Your task to perform on an android device: Open accessibility settings Image 0: 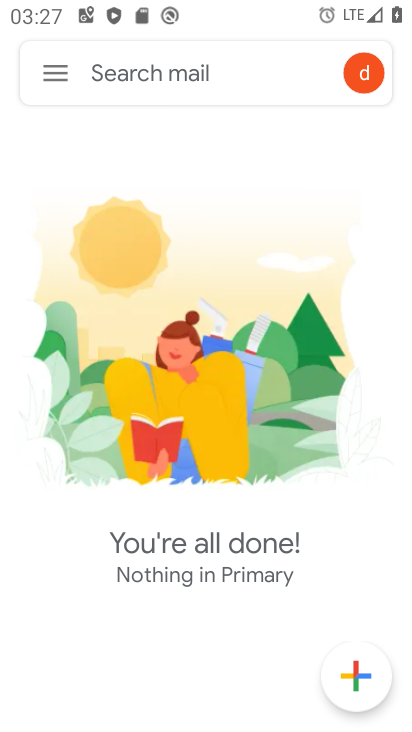
Step 0: press home button
Your task to perform on an android device: Open accessibility settings Image 1: 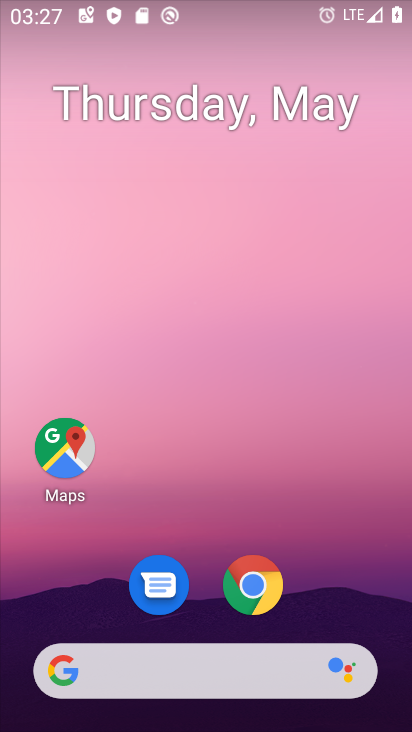
Step 1: drag from (212, 495) to (183, 43)
Your task to perform on an android device: Open accessibility settings Image 2: 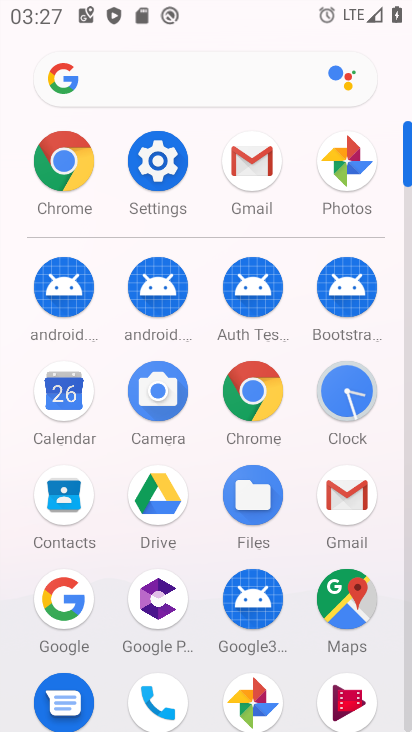
Step 2: click (155, 162)
Your task to perform on an android device: Open accessibility settings Image 3: 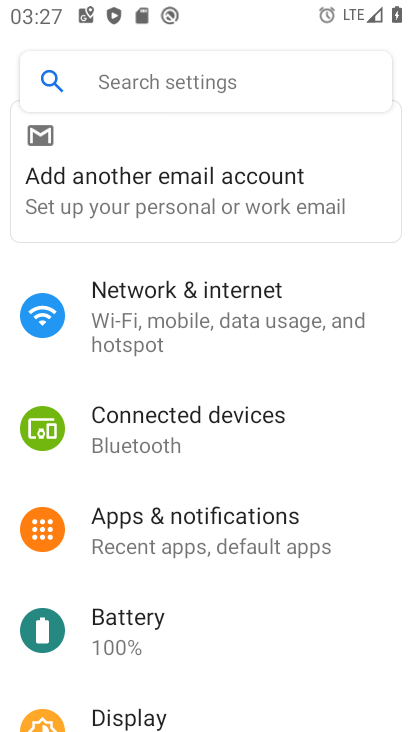
Step 3: drag from (226, 641) to (220, 163)
Your task to perform on an android device: Open accessibility settings Image 4: 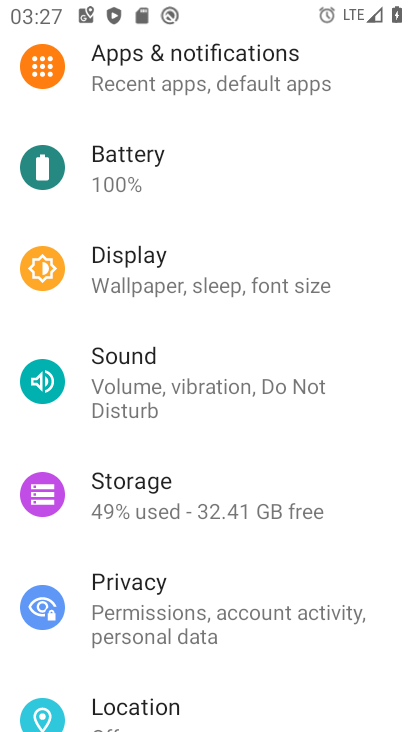
Step 4: drag from (219, 565) to (229, 124)
Your task to perform on an android device: Open accessibility settings Image 5: 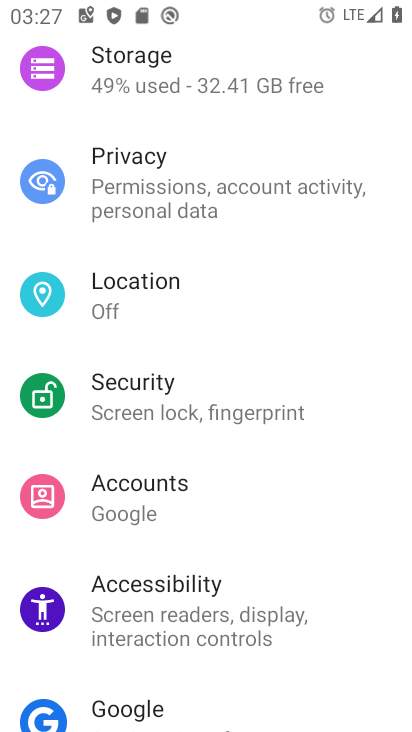
Step 5: click (220, 593)
Your task to perform on an android device: Open accessibility settings Image 6: 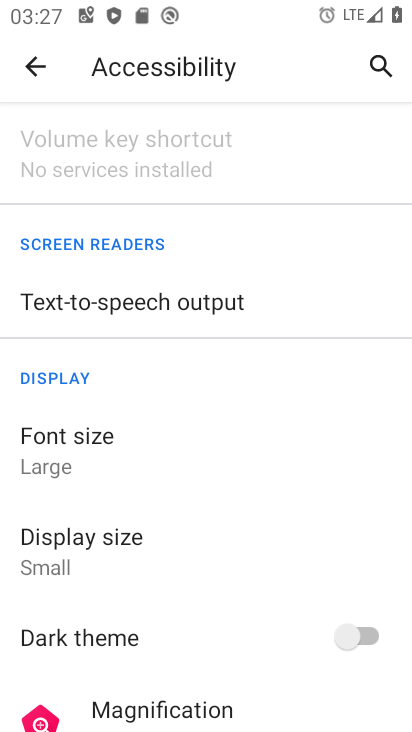
Step 6: task complete